Your task to perform on an android device: Open Youtube and go to "Your channel" Image 0: 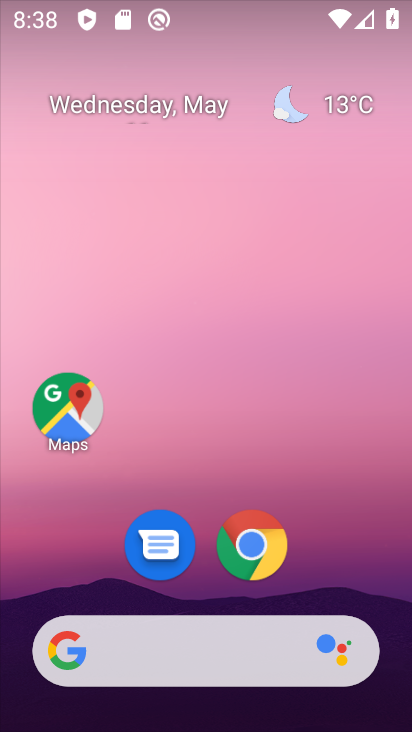
Step 0: drag from (287, 305) to (247, 39)
Your task to perform on an android device: Open Youtube and go to "Your channel" Image 1: 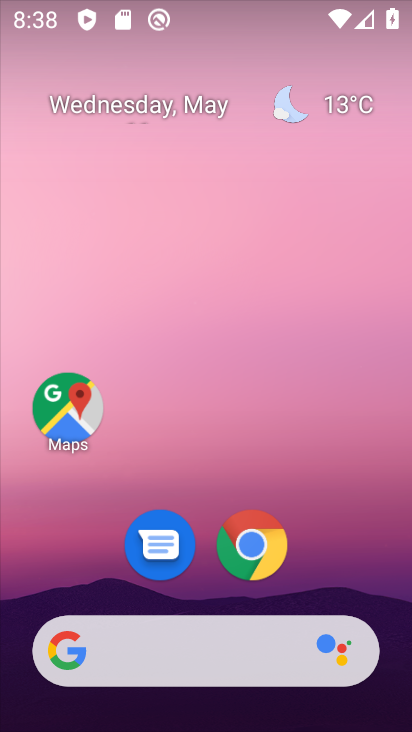
Step 1: drag from (319, 562) to (251, 3)
Your task to perform on an android device: Open Youtube and go to "Your channel" Image 2: 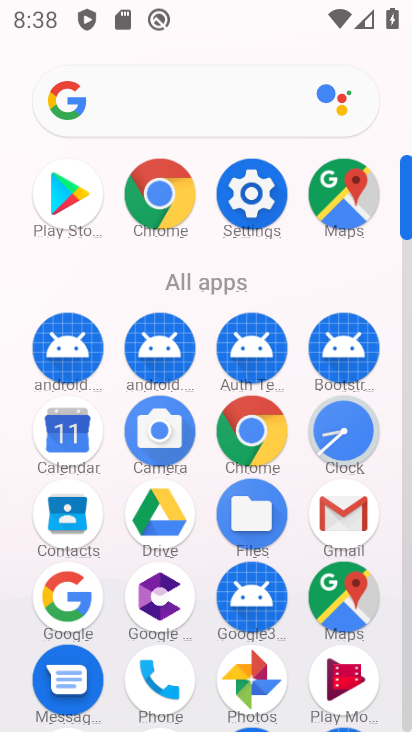
Step 2: drag from (13, 562) to (28, 140)
Your task to perform on an android device: Open Youtube and go to "Your channel" Image 3: 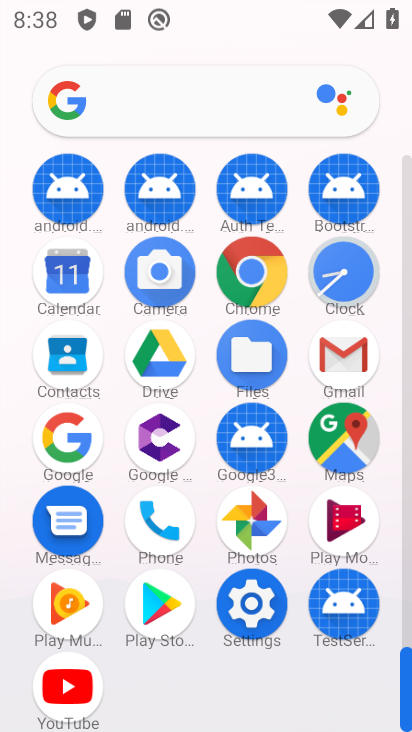
Step 3: click (63, 677)
Your task to perform on an android device: Open Youtube and go to "Your channel" Image 4: 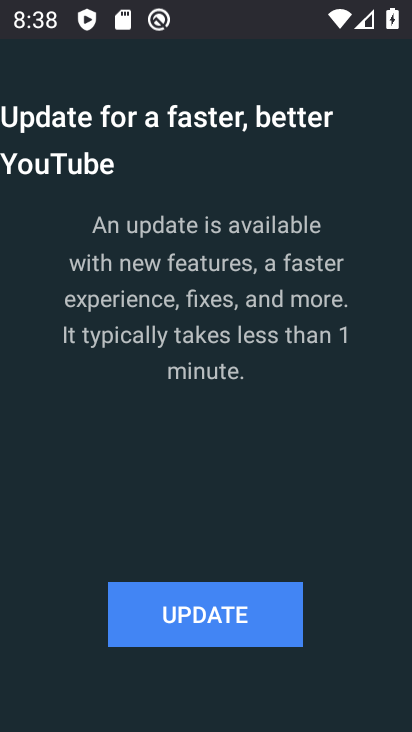
Step 4: click (231, 624)
Your task to perform on an android device: Open Youtube and go to "Your channel" Image 5: 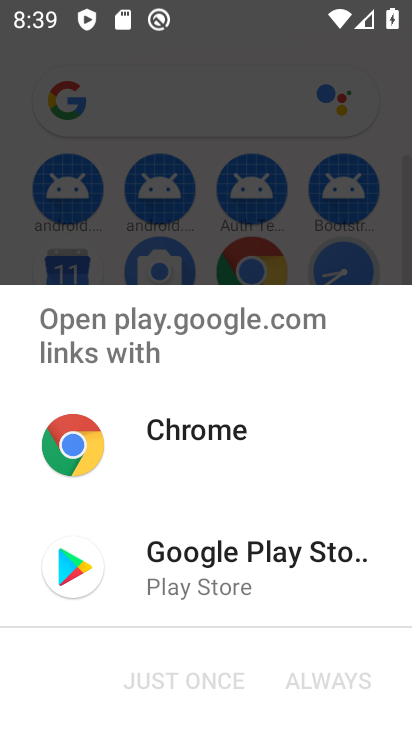
Step 5: click (214, 561)
Your task to perform on an android device: Open Youtube and go to "Your channel" Image 6: 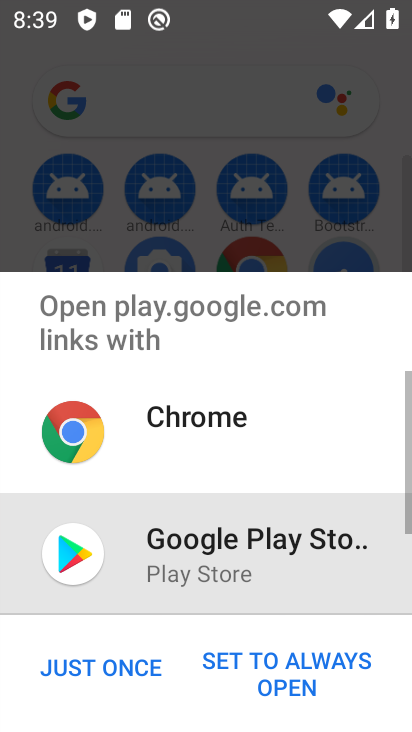
Step 6: click (81, 657)
Your task to perform on an android device: Open Youtube and go to "Your channel" Image 7: 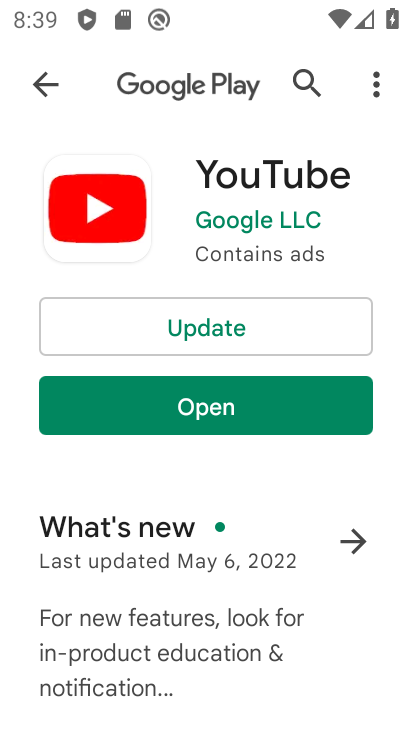
Step 7: click (170, 337)
Your task to perform on an android device: Open Youtube and go to "Your channel" Image 8: 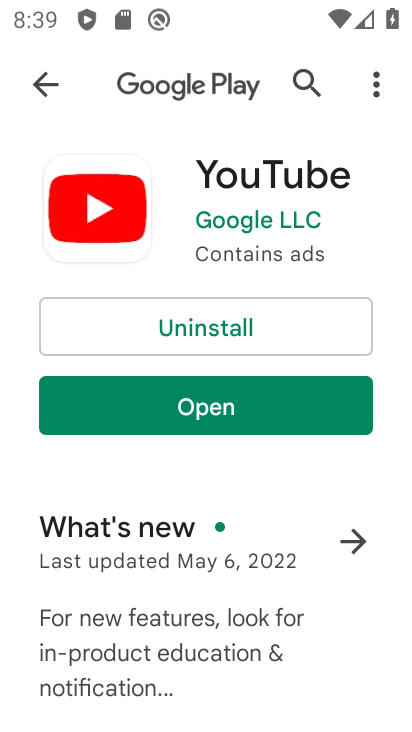
Step 8: click (204, 393)
Your task to perform on an android device: Open Youtube and go to "Your channel" Image 9: 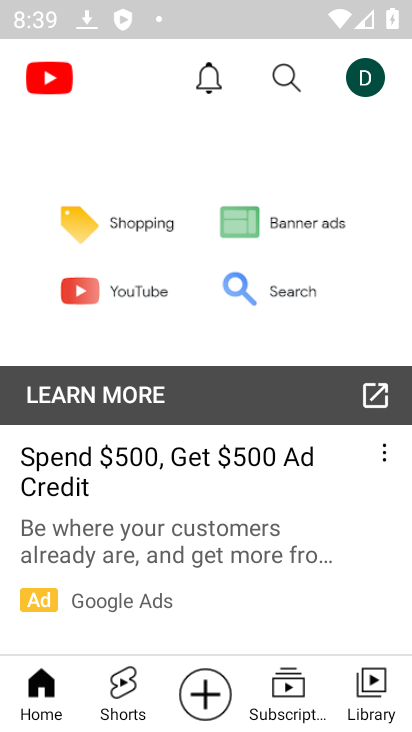
Step 9: click (364, 683)
Your task to perform on an android device: Open Youtube and go to "Your channel" Image 10: 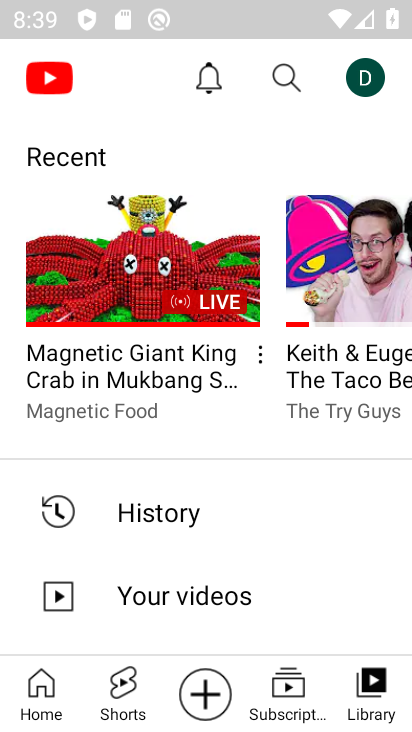
Step 10: drag from (255, 605) to (284, 242)
Your task to perform on an android device: Open Youtube and go to "Your channel" Image 11: 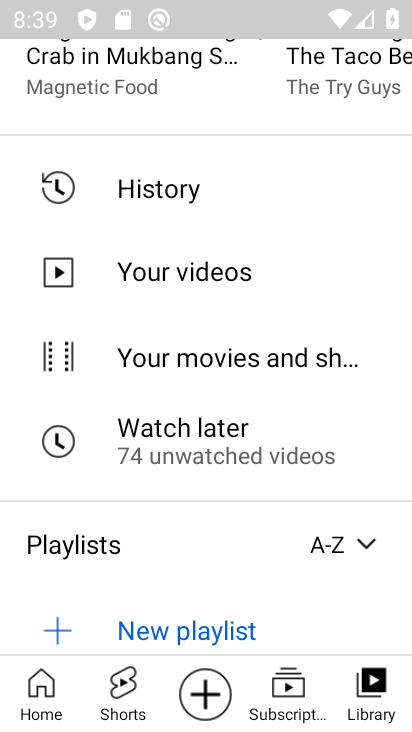
Step 11: drag from (217, 539) to (247, 231)
Your task to perform on an android device: Open Youtube and go to "Your channel" Image 12: 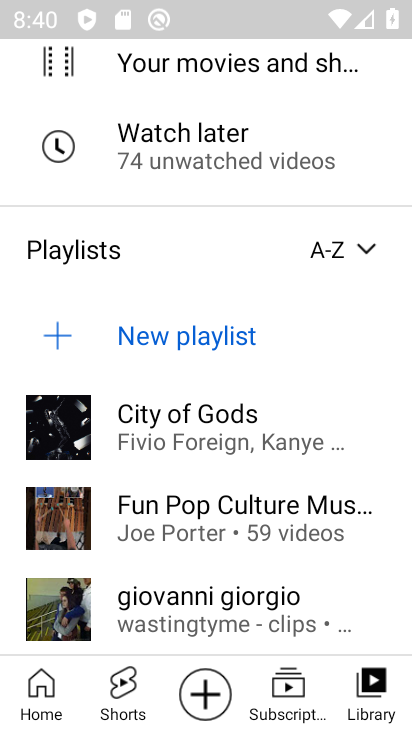
Step 12: drag from (267, 199) to (266, 532)
Your task to perform on an android device: Open Youtube and go to "Your channel" Image 13: 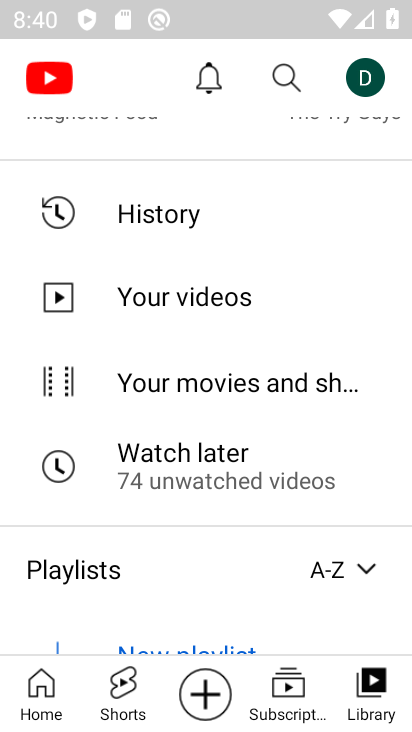
Step 13: drag from (266, 532) to (260, 193)
Your task to perform on an android device: Open Youtube and go to "Your channel" Image 14: 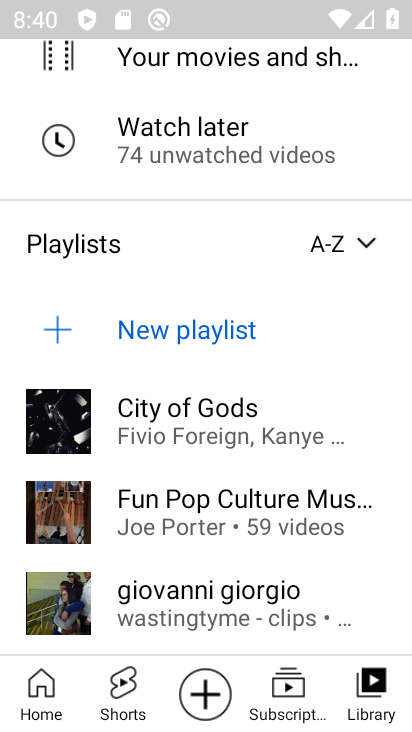
Step 14: drag from (258, 548) to (244, 156)
Your task to perform on an android device: Open Youtube and go to "Your channel" Image 15: 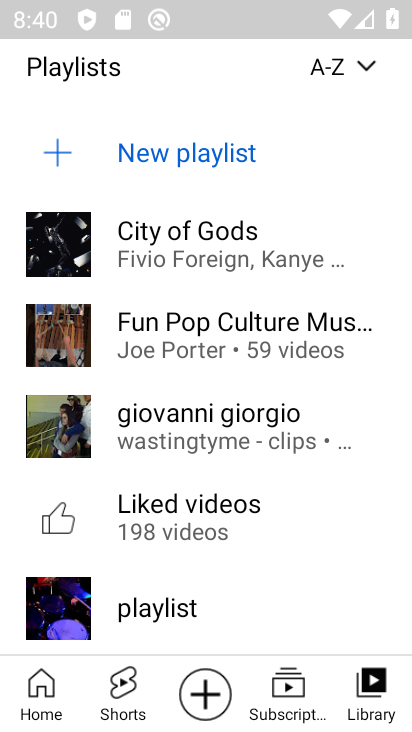
Step 15: drag from (270, 506) to (269, 156)
Your task to perform on an android device: Open Youtube and go to "Your channel" Image 16: 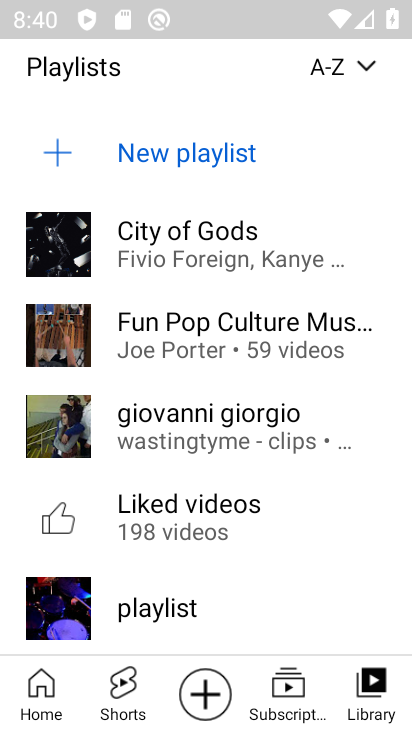
Step 16: drag from (269, 155) to (243, 585)
Your task to perform on an android device: Open Youtube and go to "Your channel" Image 17: 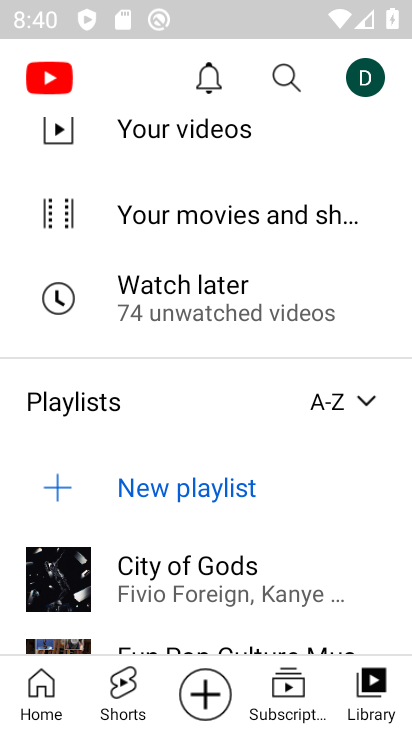
Step 17: drag from (284, 203) to (268, 573)
Your task to perform on an android device: Open Youtube and go to "Your channel" Image 18: 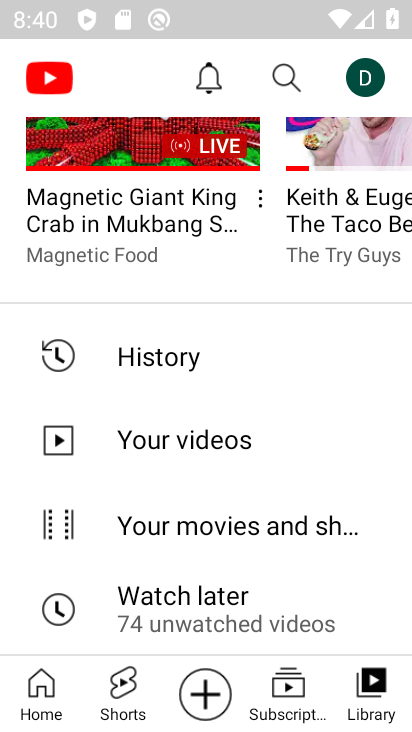
Step 18: drag from (260, 229) to (256, 545)
Your task to perform on an android device: Open Youtube and go to "Your channel" Image 19: 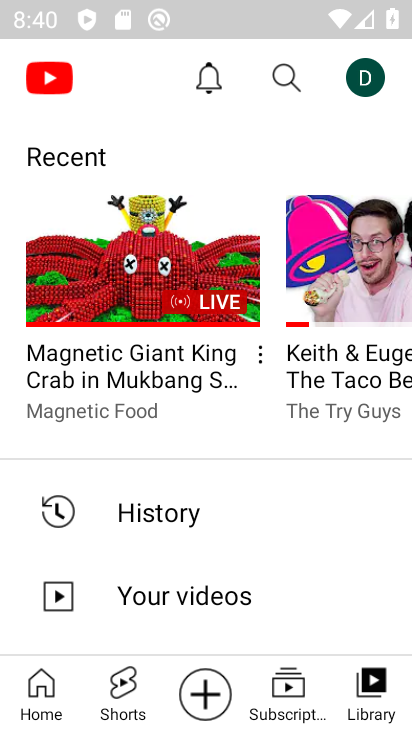
Step 19: click (370, 66)
Your task to perform on an android device: Open Youtube and go to "Your channel" Image 20: 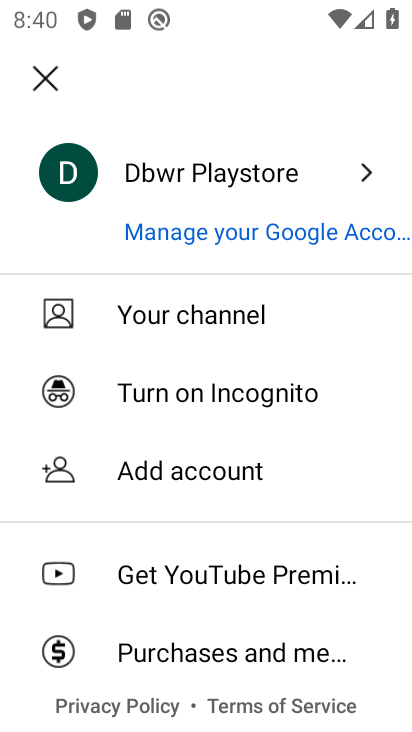
Step 20: click (245, 320)
Your task to perform on an android device: Open Youtube and go to "Your channel" Image 21: 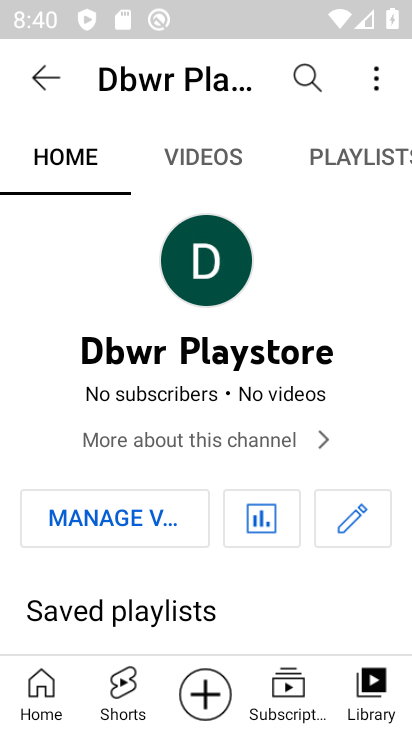
Step 21: task complete